Your task to perform on an android device: Open the calendar app, open the side menu, and click the "Day" option Image 0: 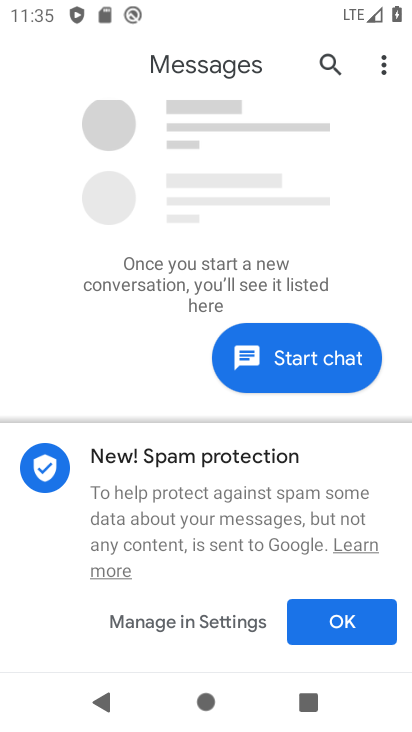
Step 0: press home button
Your task to perform on an android device: Open the calendar app, open the side menu, and click the "Day" option Image 1: 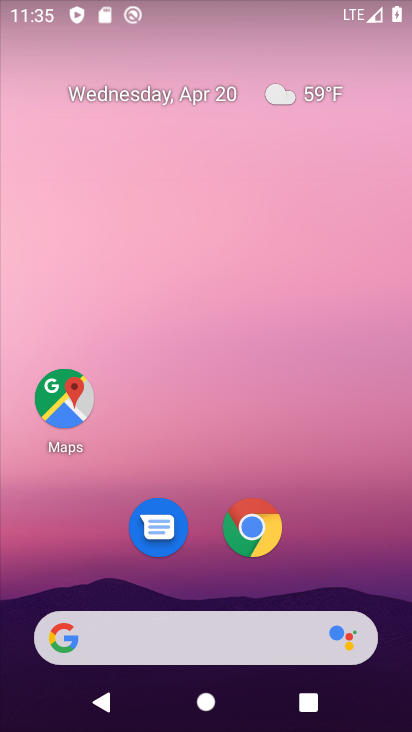
Step 1: drag from (340, 525) to (322, 77)
Your task to perform on an android device: Open the calendar app, open the side menu, and click the "Day" option Image 2: 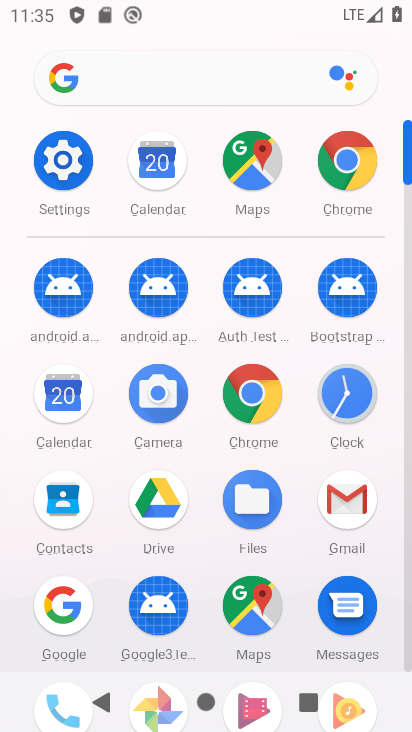
Step 2: click (62, 394)
Your task to perform on an android device: Open the calendar app, open the side menu, and click the "Day" option Image 3: 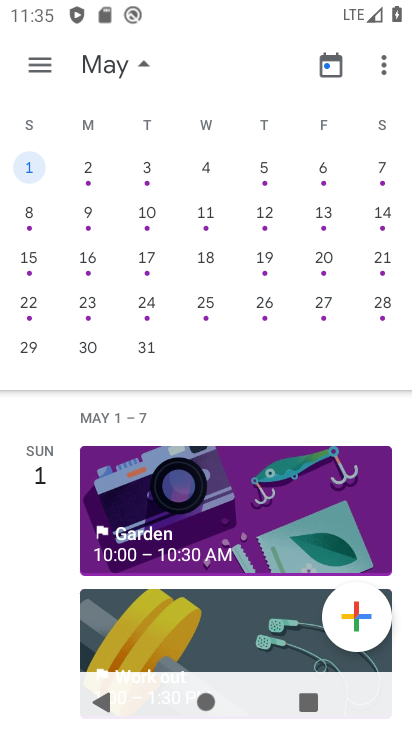
Step 3: click (45, 64)
Your task to perform on an android device: Open the calendar app, open the side menu, and click the "Day" option Image 4: 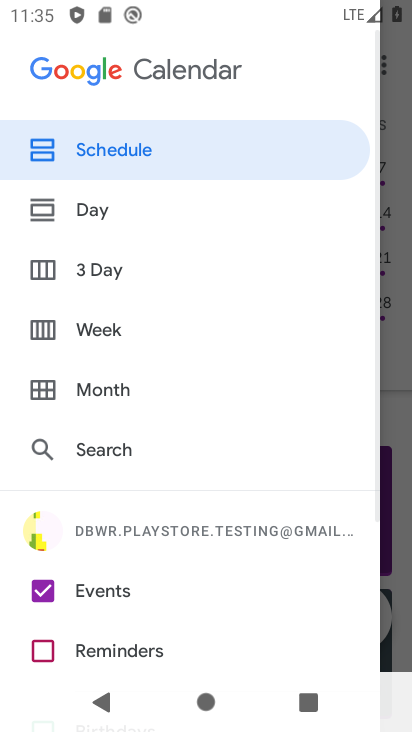
Step 4: click (135, 210)
Your task to perform on an android device: Open the calendar app, open the side menu, and click the "Day" option Image 5: 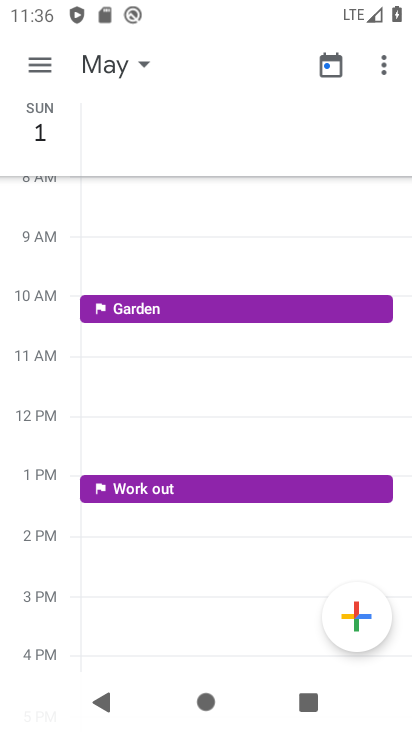
Step 5: task complete